Your task to perform on an android device: Open calendar and show me the second week of next month Image 0: 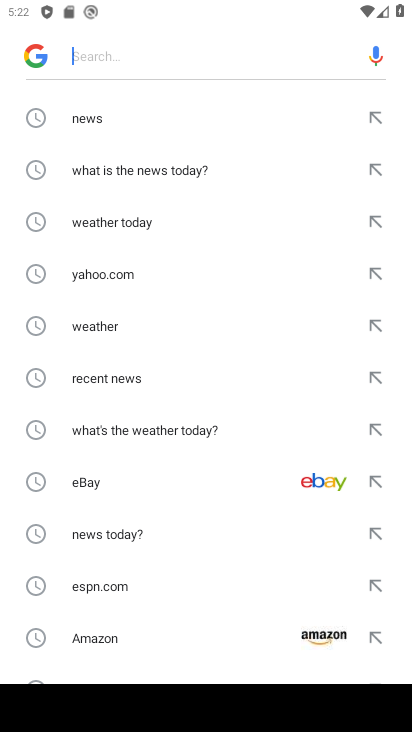
Step 0: press home button
Your task to perform on an android device: Open calendar and show me the second week of next month Image 1: 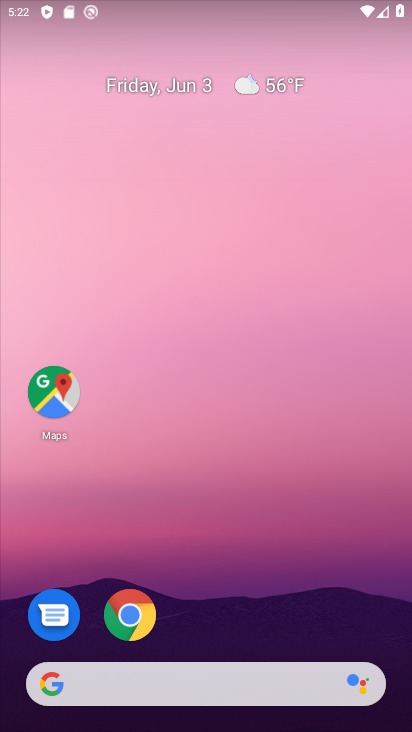
Step 1: drag from (285, 618) to (198, 99)
Your task to perform on an android device: Open calendar and show me the second week of next month Image 2: 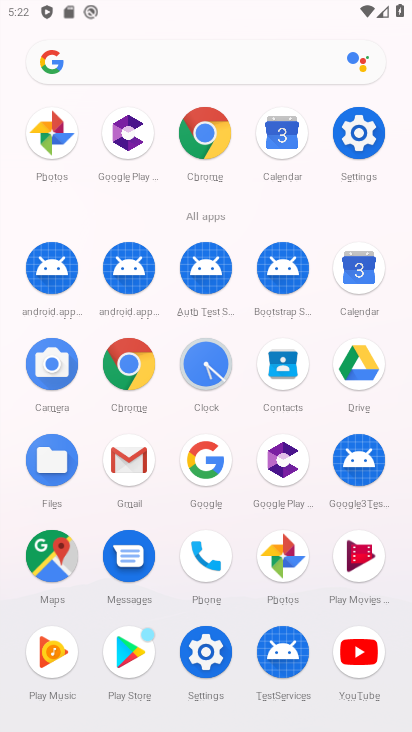
Step 2: click (284, 138)
Your task to perform on an android device: Open calendar and show me the second week of next month Image 3: 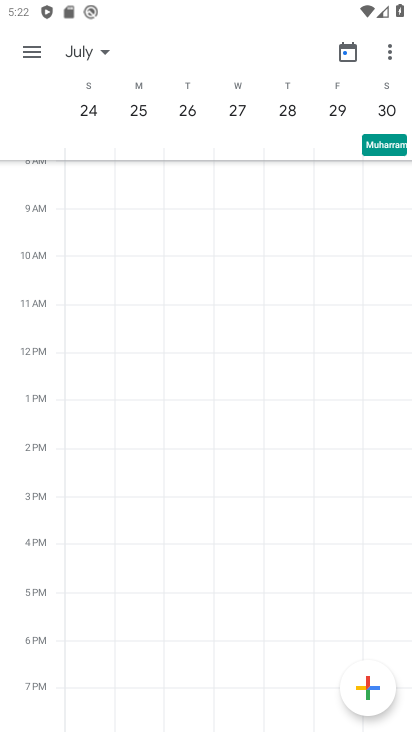
Step 3: click (350, 51)
Your task to perform on an android device: Open calendar and show me the second week of next month Image 4: 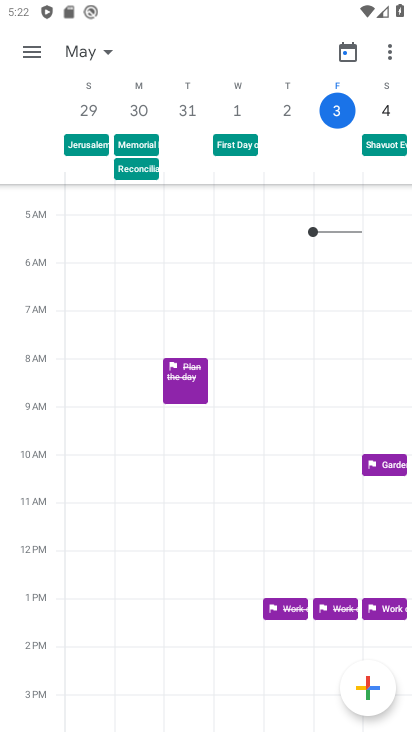
Step 4: click (350, 51)
Your task to perform on an android device: Open calendar and show me the second week of next month Image 5: 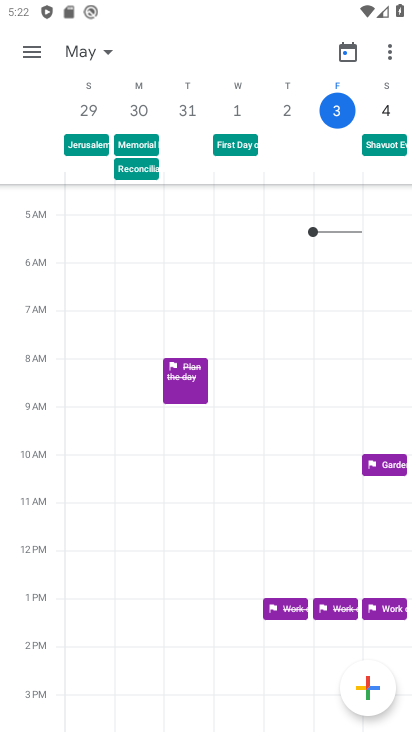
Step 5: click (114, 50)
Your task to perform on an android device: Open calendar and show me the second week of next month Image 6: 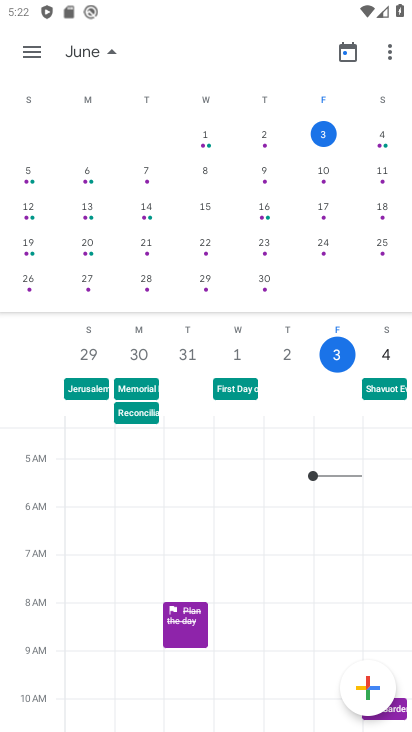
Step 6: drag from (362, 224) to (7, 252)
Your task to perform on an android device: Open calendar and show me the second week of next month Image 7: 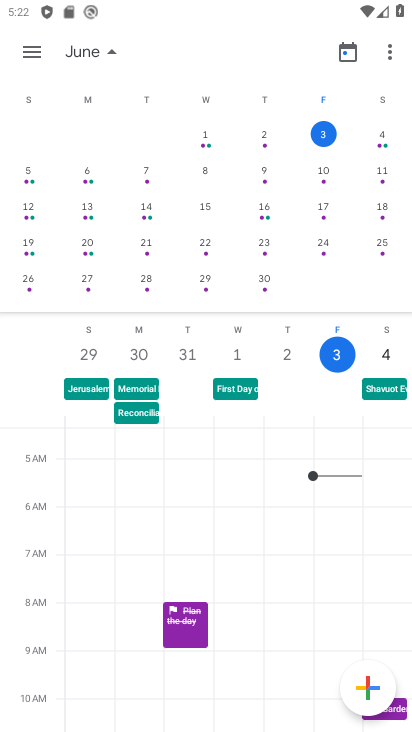
Step 7: drag from (355, 190) to (13, 211)
Your task to perform on an android device: Open calendar and show me the second week of next month Image 8: 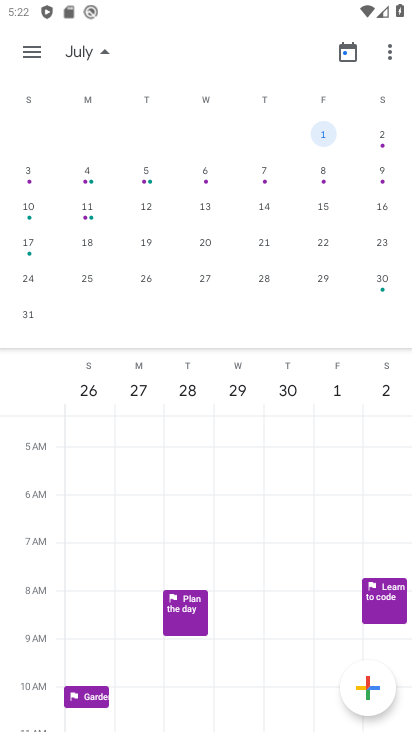
Step 8: click (97, 208)
Your task to perform on an android device: Open calendar and show me the second week of next month Image 9: 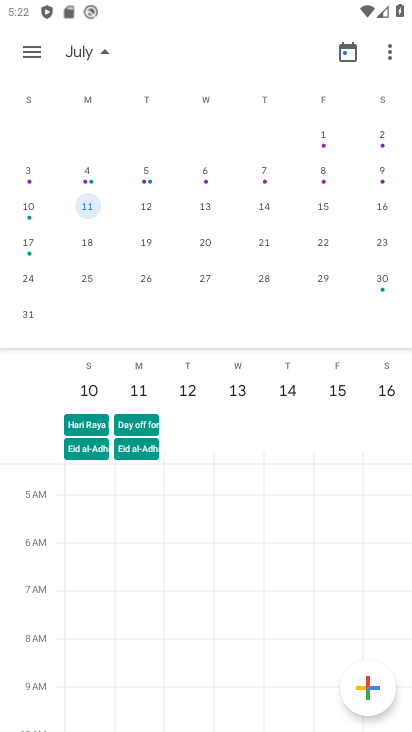
Step 9: click (34, 56)
Your task to perform on an android device: Open calendar and show me the second week of next month Image 10: 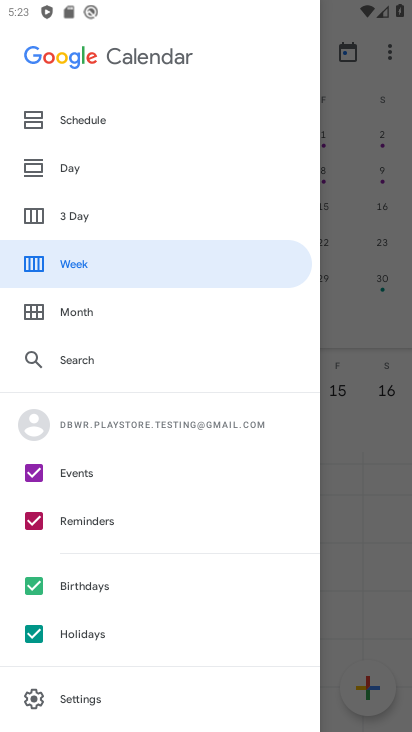
Step 10: click (88, 257)
Your task to perform on an android device: Open calendar and show me the second week of next month Image 11: 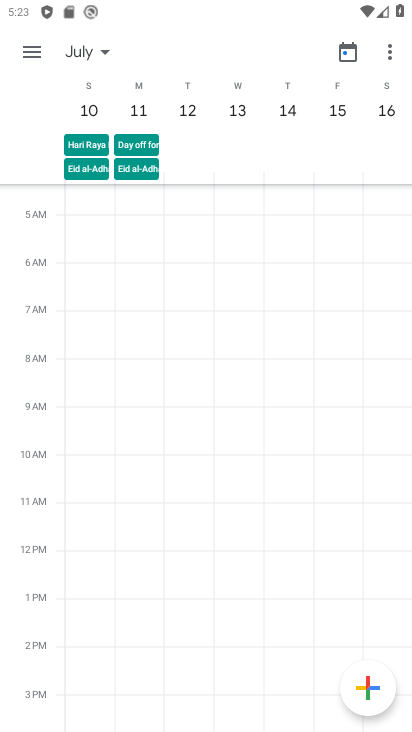
Step 11: task complete